Your task to perform on an android device: toggle show notifications on the lock screen Image 0: 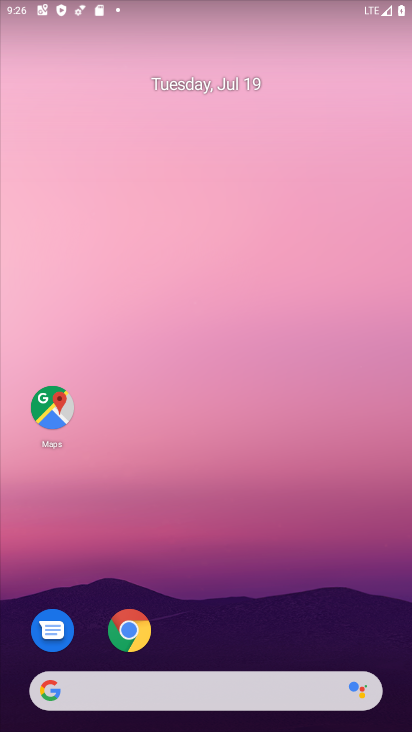
Step 0: drag from (217, 628) to (297, 90)
Your task to perform on an android device: toggle show notifications on the lock screen Image 1: 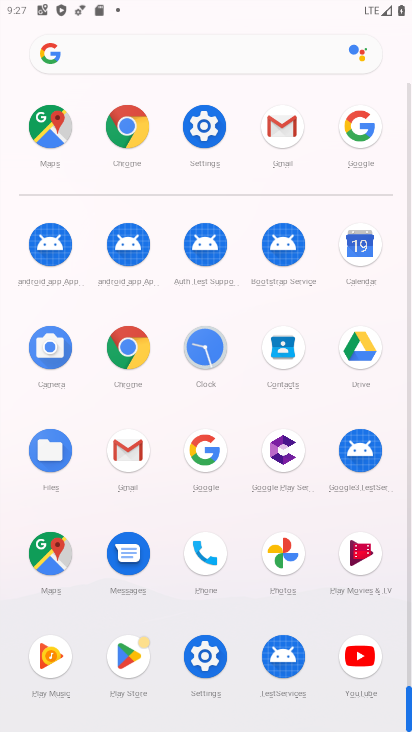
Step 1: click (217, 140)
Your task to perform on an android device: toggle show notifications on the lock screen Image 2: 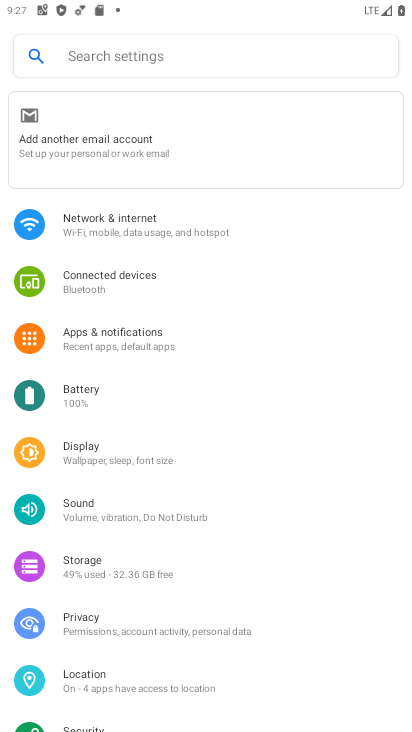
Step 2: click (136, 348)
Your task to perform on an android device: toggle show notifications on the lock screen Image 3: 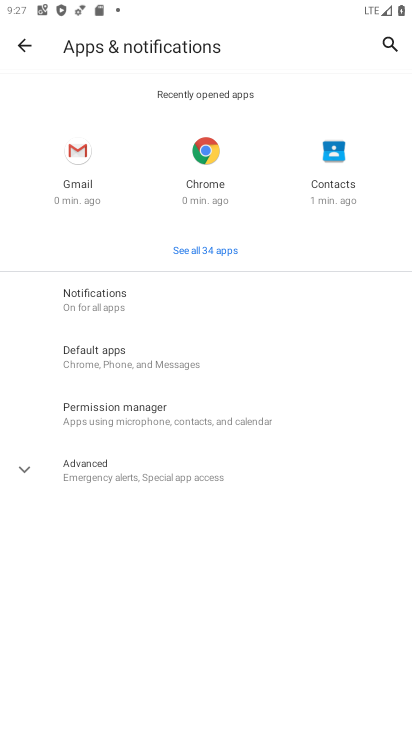
Step 3: click (137, 320)
Your task to perform on an android device: toggle show notifications on the lock screen Image 4: 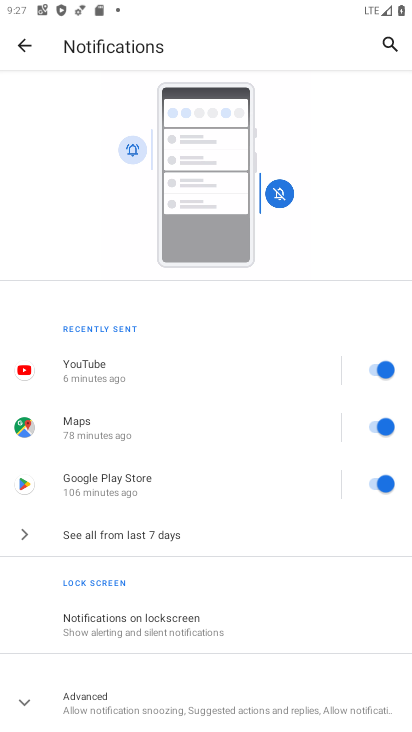
Step 4: click (124, 625)
Your task to perform on an android device: toggle show notifications on the lock screen Image 5: 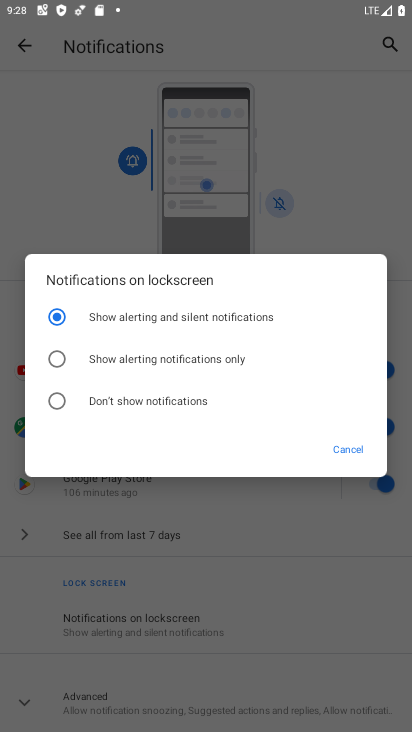
Step 5: click (114, 406)
Your task to perform on an android device: toggle show notifications on the lock screen Image 6: 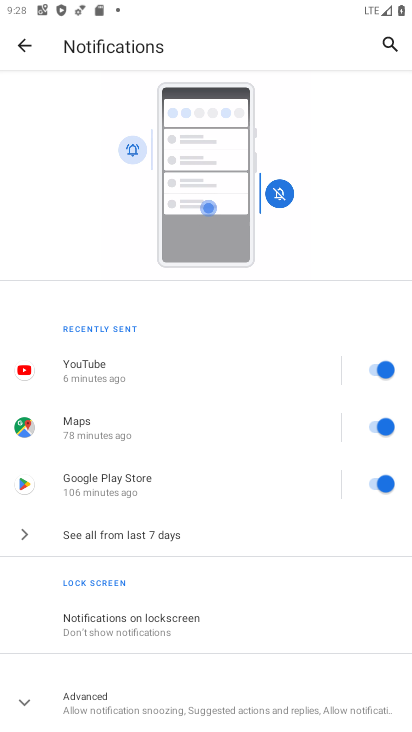
Step 6: task complete